Your task to perform on an android device: turn off location history Image 0: 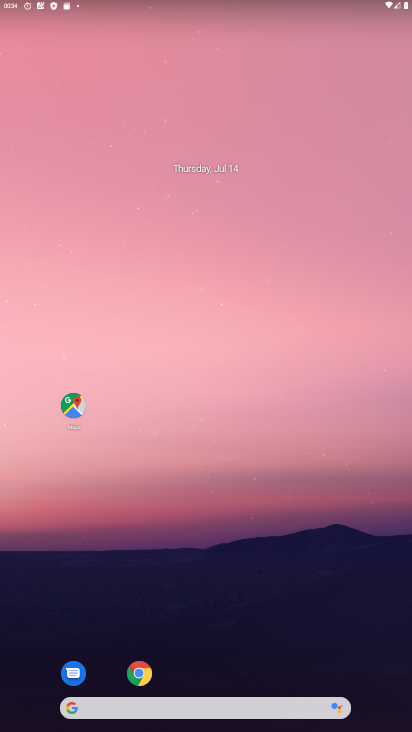
Step 0: drag from (197, 666) to (205, 209)
Your task to perform on an android device: turn off location history Image 1: 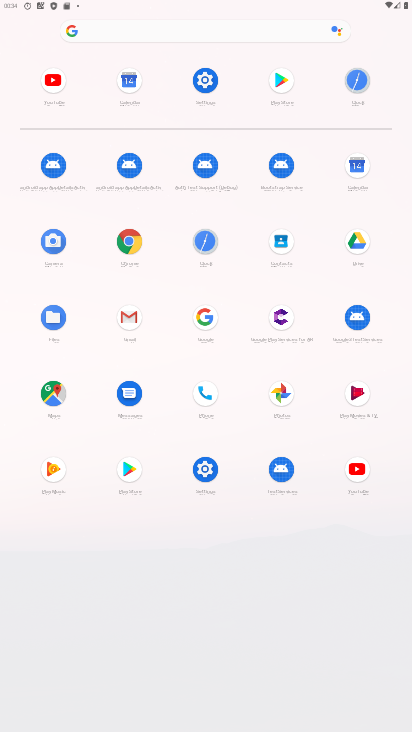
Step 1: click (191, 82)
Your task to perform on an android device: turn off location history Image 2: 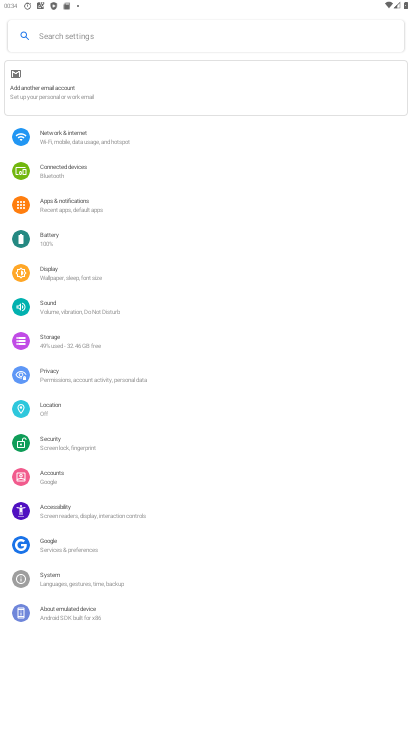
Step 2: click (69, 407)
Your task to perform on an android device: turn off location history Image 3: 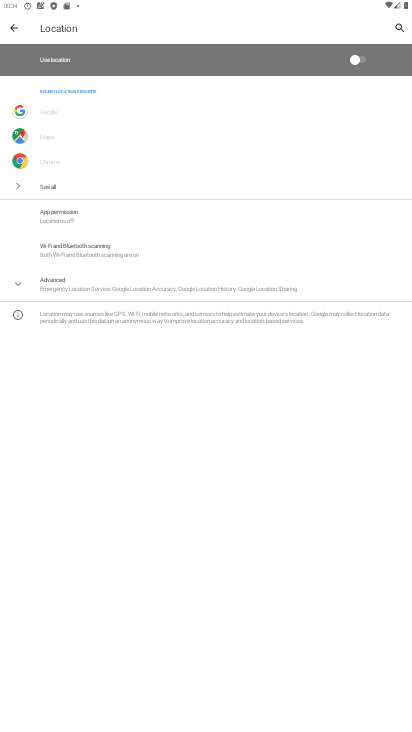
Step 3: click (70, 290)
Your task to perform on an android device: turn off location history Image 4: 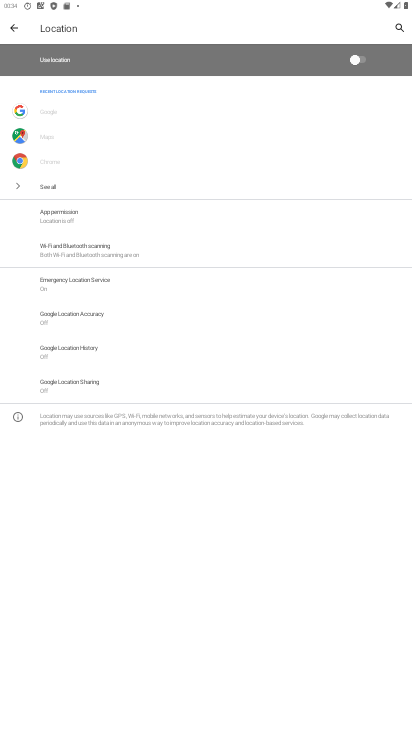
Step 4: click (89, 353)
Your task to perform on an android device: turn off location history Image 5: 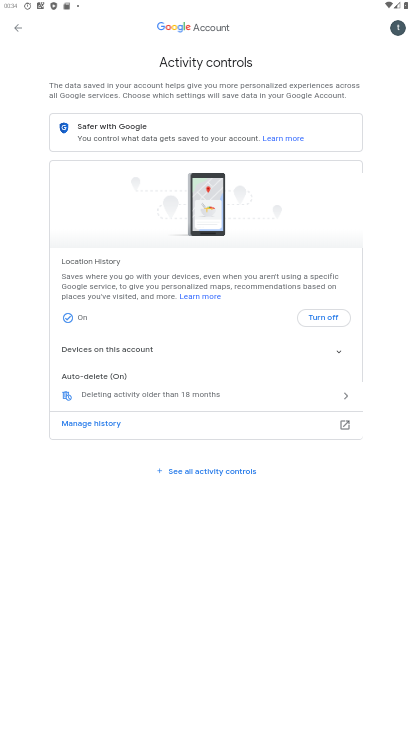
Step 5: click (332, 310)
Your task to perform on an android device: turn off location history Image 6: 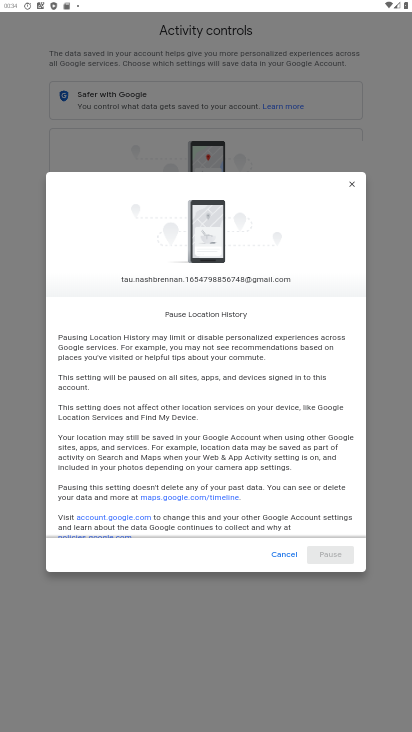
Step 6: click (325, 541)
Your task to perform on an android device: turn off location history Image 7: 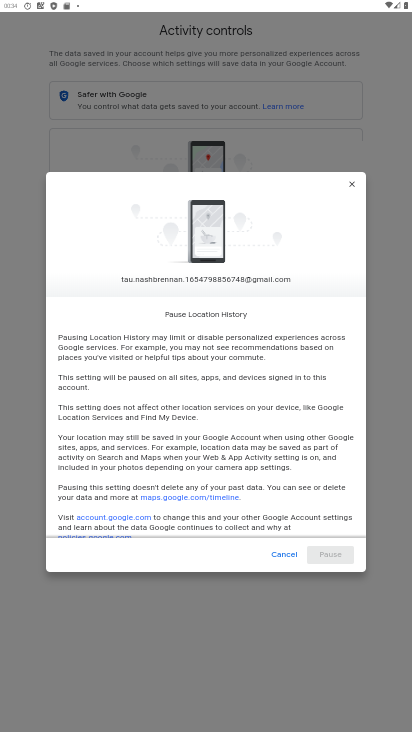
Step 7: drag from (251, 446) to (234, 192)
Your task to perform on an android device: turn off location history Image 8: 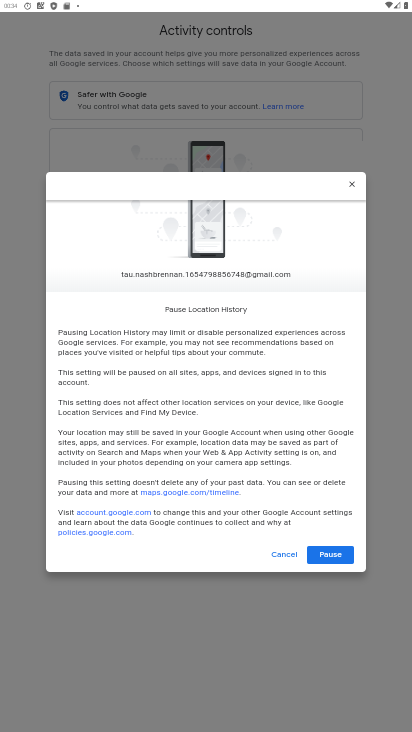
Step 8: drag from (134, 507) to (173, 331)
Your task to perform on an android device: turn off location history Image 9: 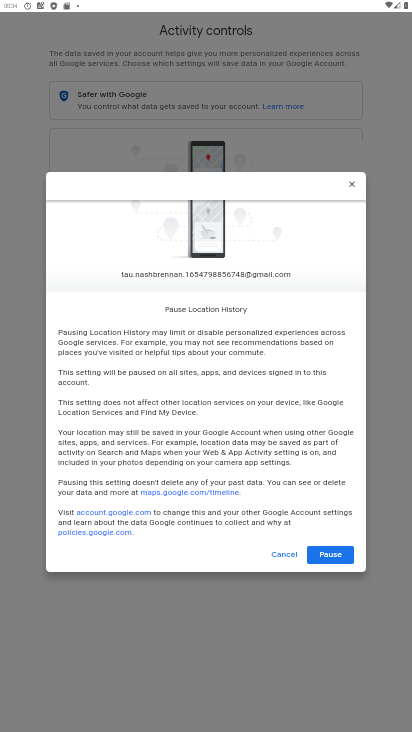
Step 9: click (333, 549)
Your task to perform on an android device: turn off location history Image 10: 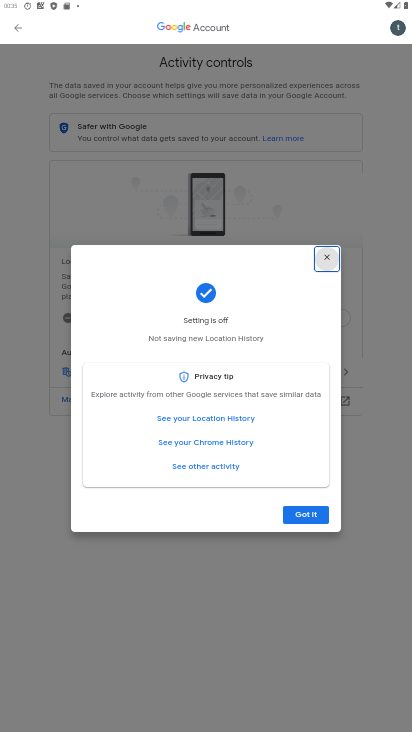
Step 10: task complete